Your task to perform on an android device: turn on translation in the chrome app Image 0: 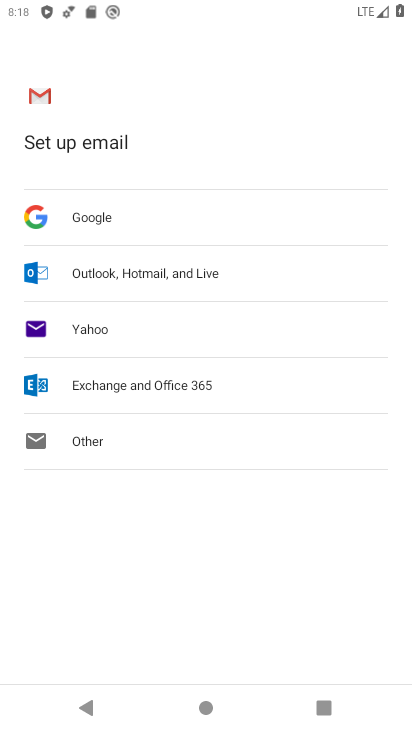
Step 0: press back button
Your task to perform on an android device: turn on translation in the chrome app Image 1: 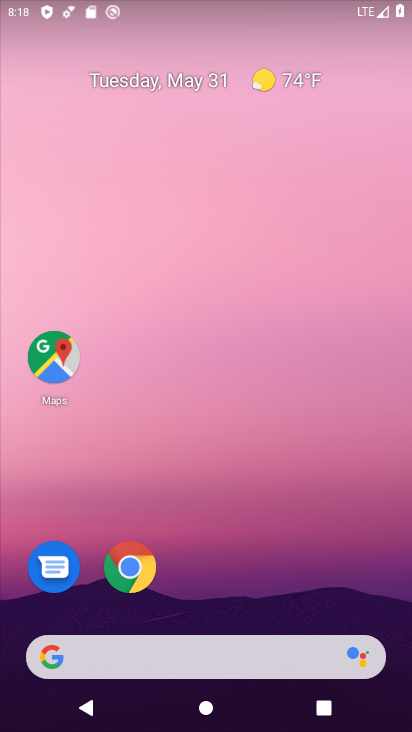
Step 1: click (199, 36)
Your task to perform on an android device: turn on translation in the chrome app Image 2: 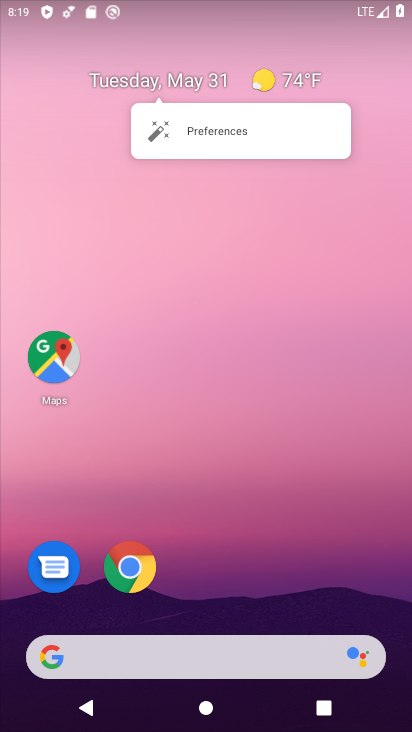
Step 2: click (173, 106)
Your task to perform on an android device: turn on translation in the chrome app Image 3: 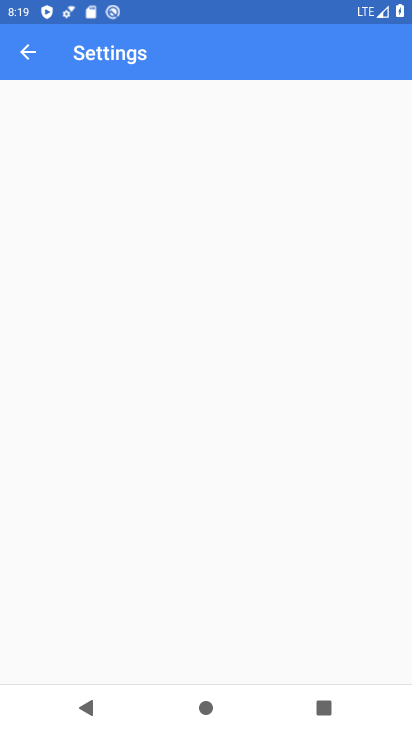
Step 3: drag from (273, 601) to (254, 5)
Your task to perform on an android device: turn on translation in the chrome app Image 4: 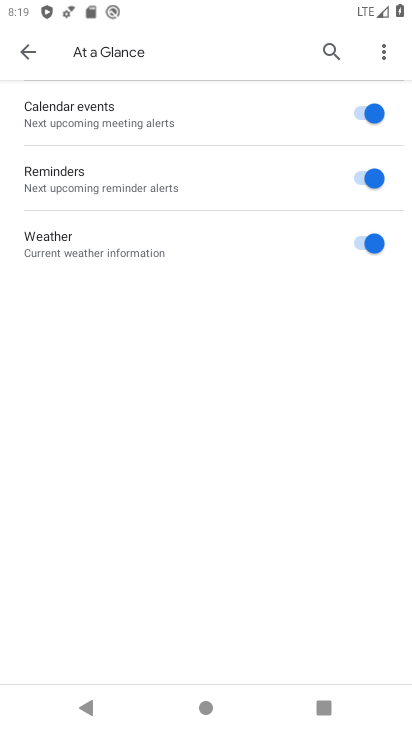
Step 4: click (30, 56)
Your task to perform on an android device: turn on translation in the chrome app Image 5: 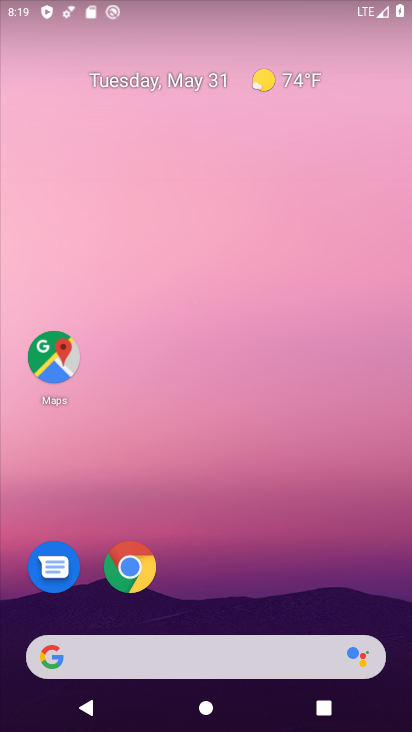
Step 5: drag from (222, 482) to (181, 191)
Your task to perform on an android device: turn on translation in the chrome app Image 6: 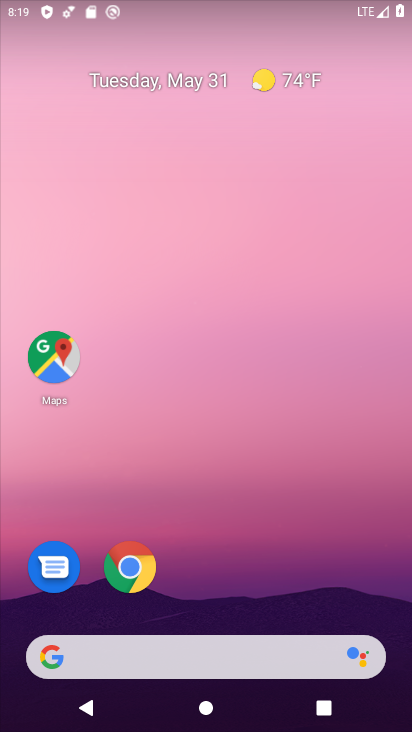
Step 6: drag from (281, 665) to (201, 291)
Your task to perform on an android device: turn on translation in the chrome app Image 7: 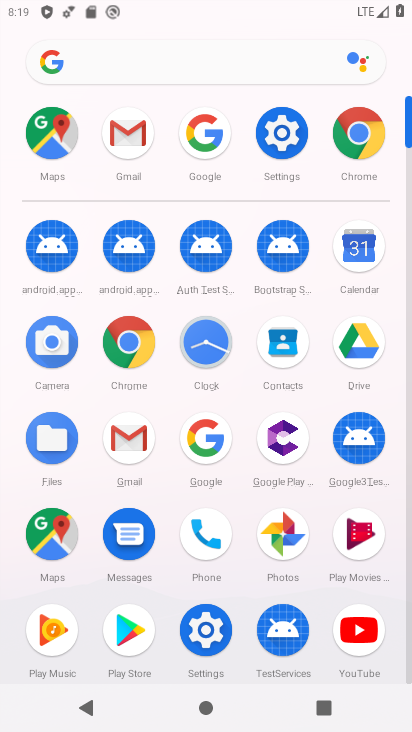
Step 7: click (359, 134)
Your task to perform on an android device: turn on translation in the chrome app Image 8: 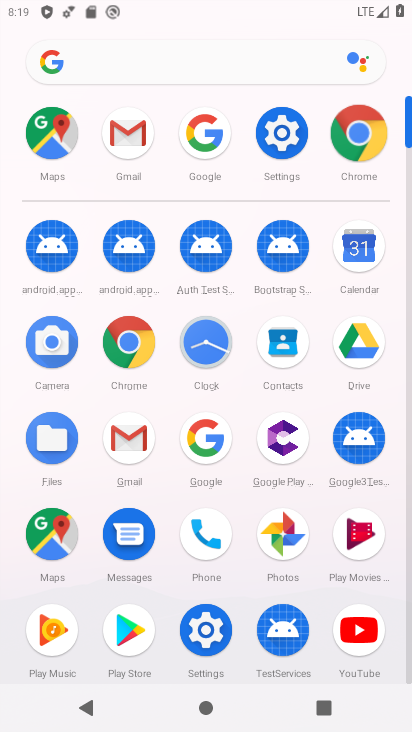
Step 8: click (359, 134)
Your task to perform on an android device: turn on translation in the chrome app Image 9: 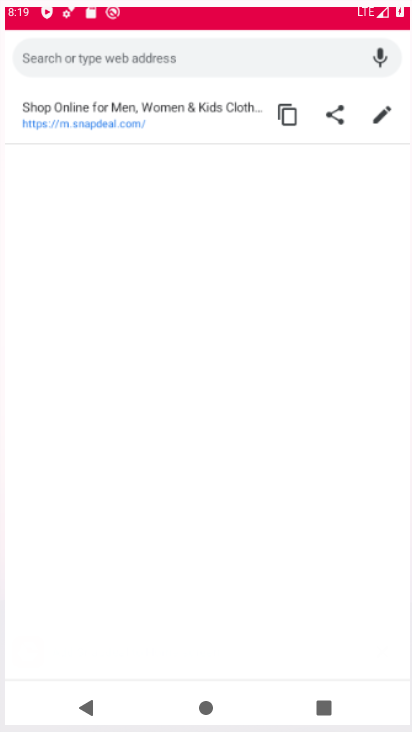
Step 9: click (360, 132)
Your task to perform on an android device: turn on translation in the chrome app Image 10: 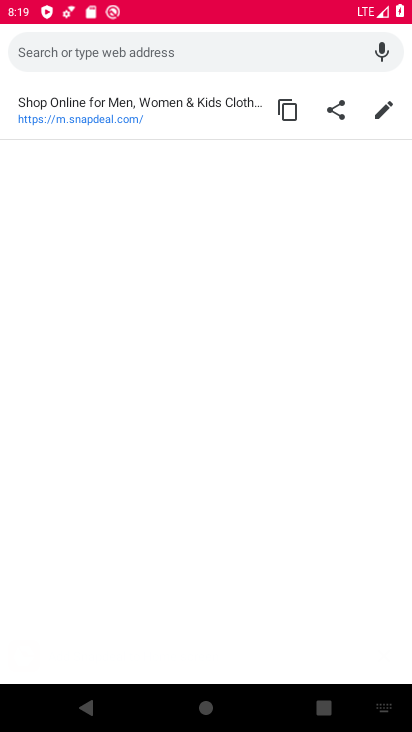
Step 10: press back button
Your task to perform on an android device: turn on translation in the chrome app Image 11: 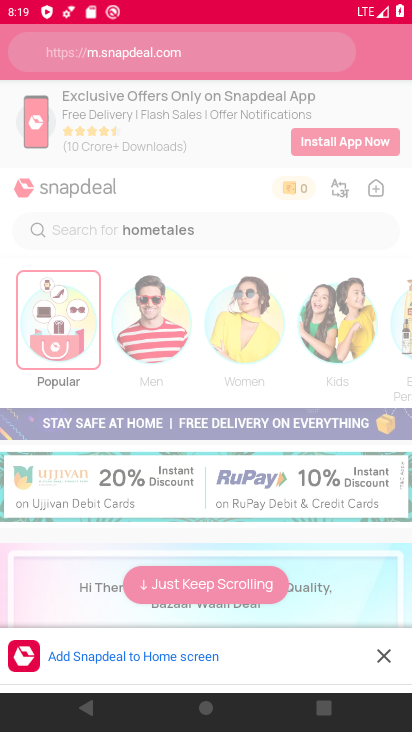
Step 11: press back button
Your task to perform on an android device: turn on translation in the chrome app Image 12: 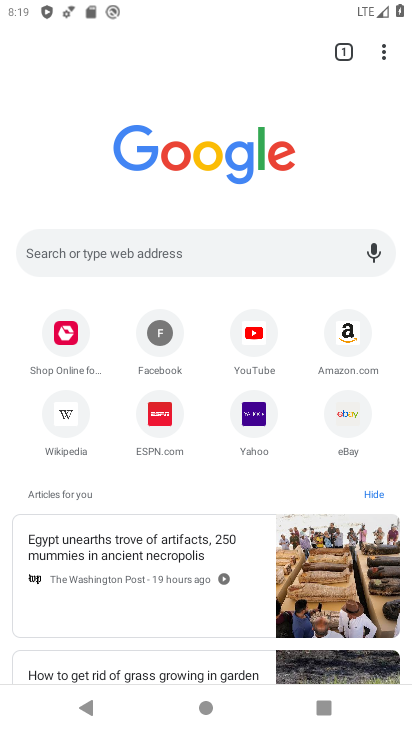
Step 12: drag from (387, 57) to (188, 436)
Your task to perform on an android device: turn on translation in the chrome app Image 13: 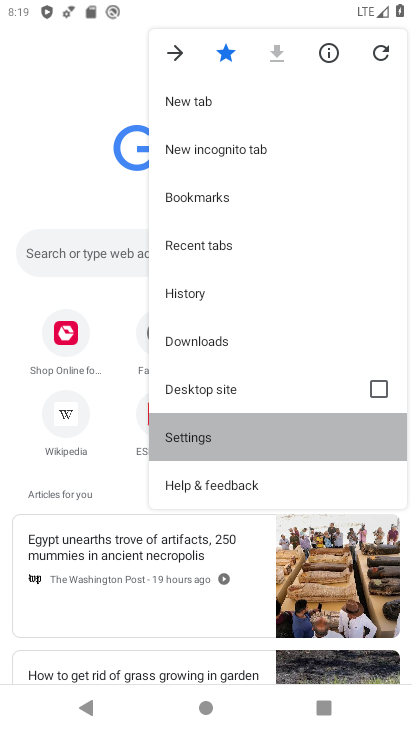
Step 13: click (189, 437)
Your task to perform on an android device: turn on translation in the chrome app Image 14: 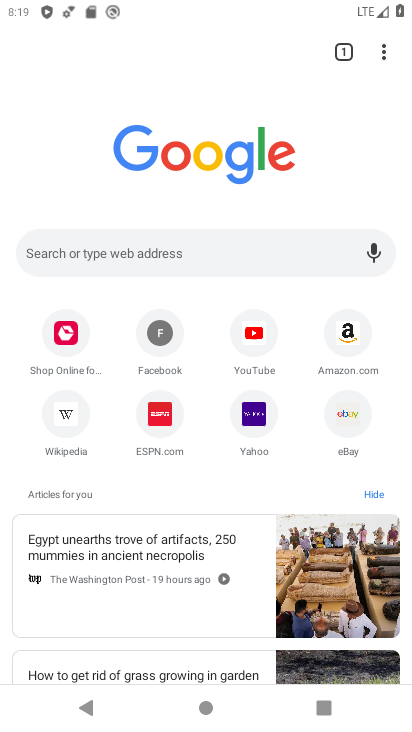
Step 14: click (192, 436)
Your task to perform on an android device: turn on translation in the chrome app Image 15: 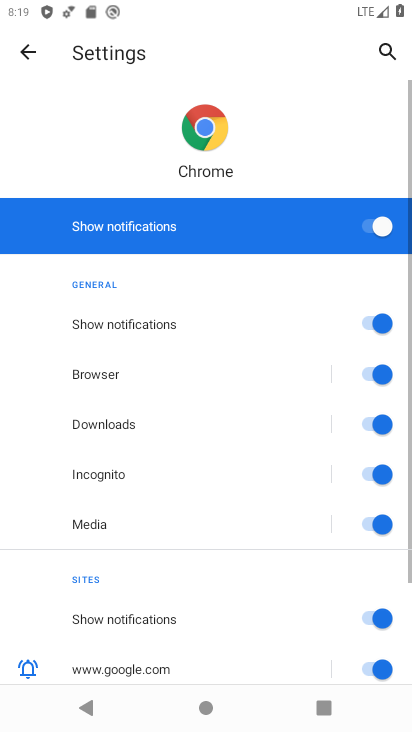
Step 15: click (18, 36)
Your task to perform on an android device: turn on translation in the chrome app Image 16: 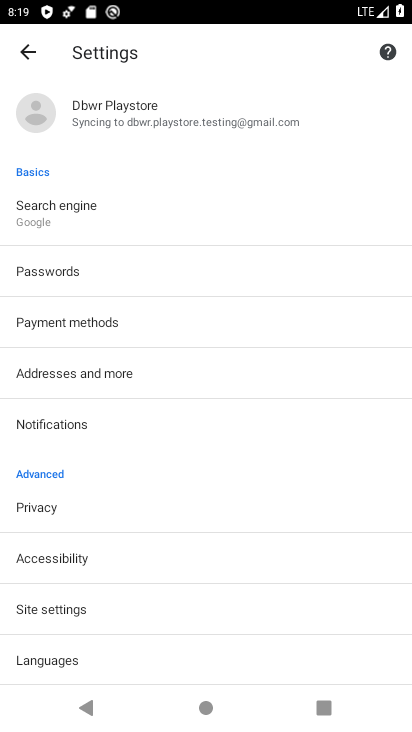
Step 16: click (49, 610)
Your task to perform on an android device: turn on translation in the chrome app Image 17: 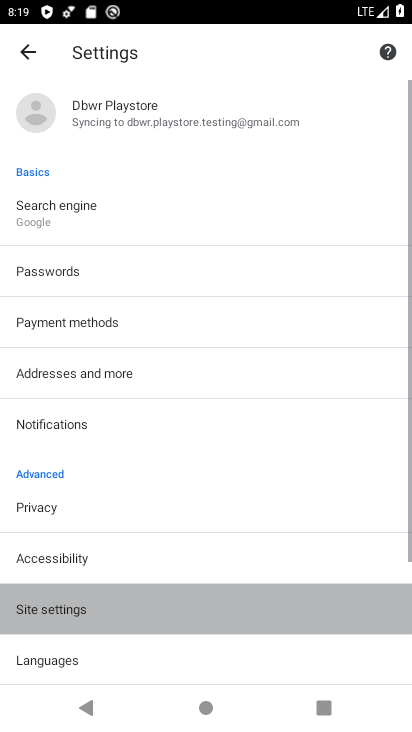
Step 17: click (49, 610)
Your task to perform on an android device: turn on translation in the chrome app Image 18: 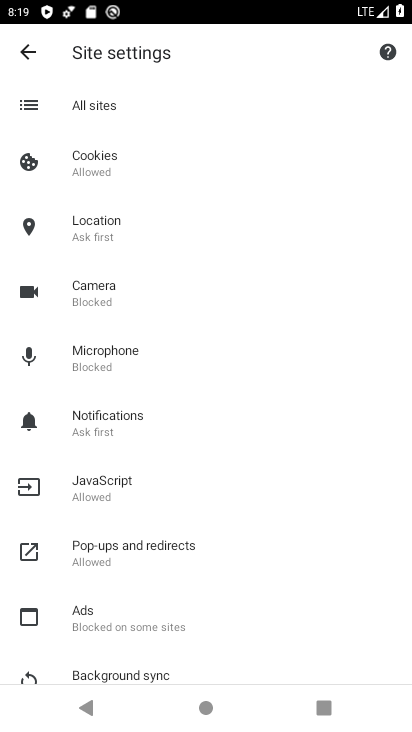
Step 18: click (24, 57)
Your task to perform on an android device: turn on translation in the chrome app Image 19: 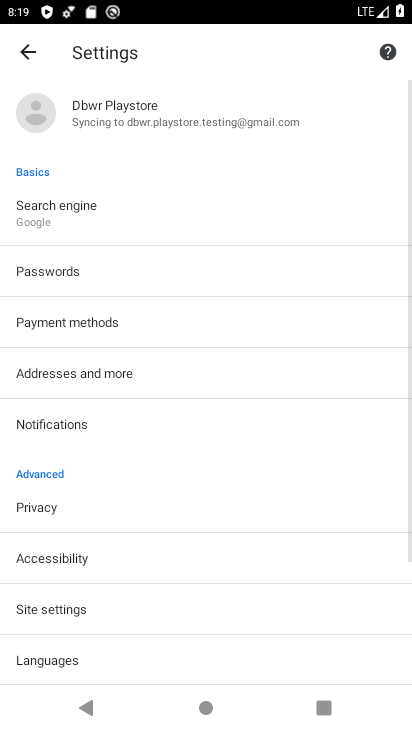
Step 19: click (56, 661)
Your task to perform on an android device: turn on translation in the chrome app Image 20: 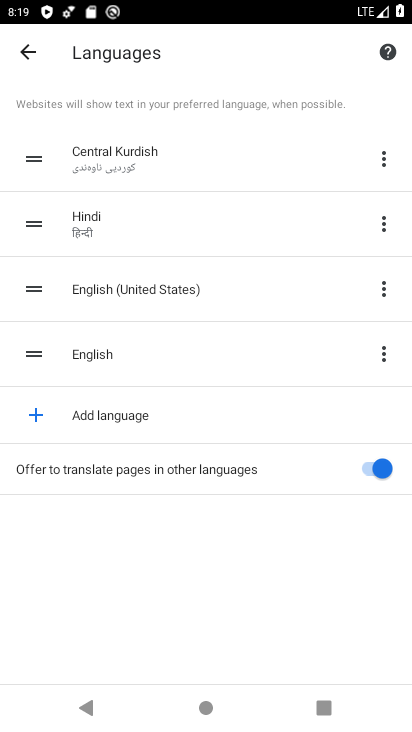
Step 20: task complete